Your task to perform on an android device: open a new tab in the chrome app Image 0: 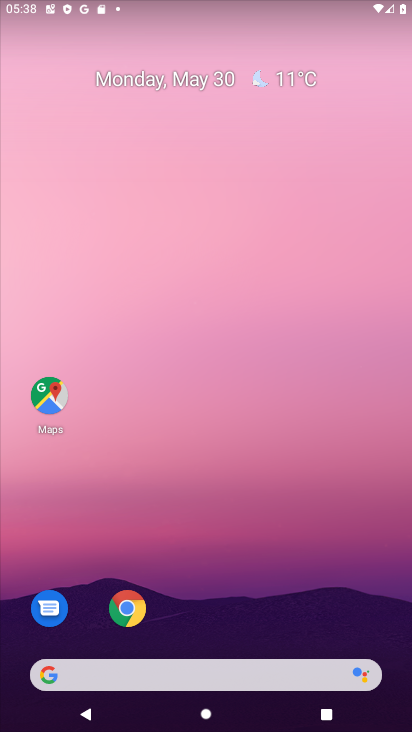
Step 0: drag from (159, 607) to (159, 284)
Your task to perform on an android device: open a new tab in the chrome app Image 1: 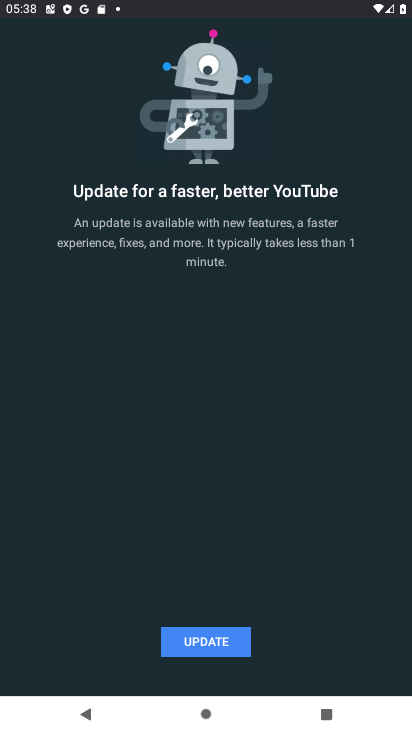
Step 1: press home button
Your task to perform on an android device: open a new tab in the chrome app Image 2: 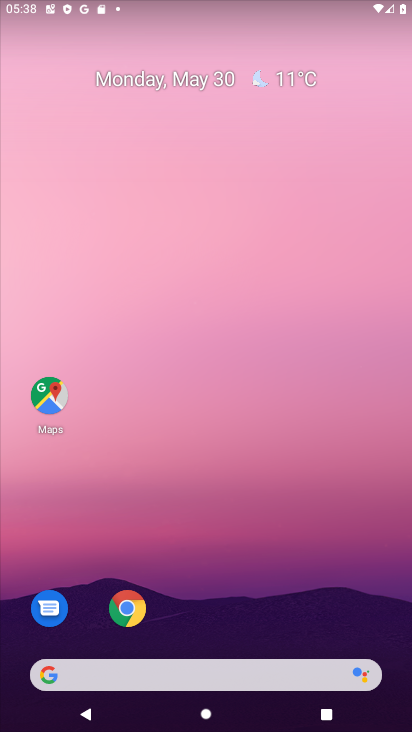
Step 2: click (133, 607)
Your task to perform on an android device: open a new tab in the chrome app Image 3: 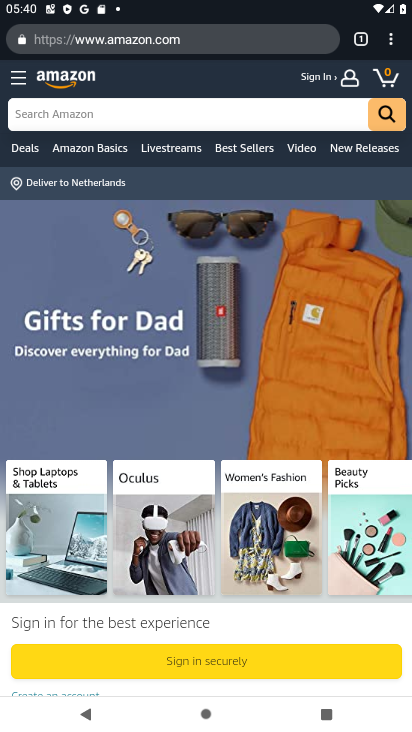
Step 3: click (390, 41)
Your task to perform on an android device: open a new tab in the chrome app Image 4: 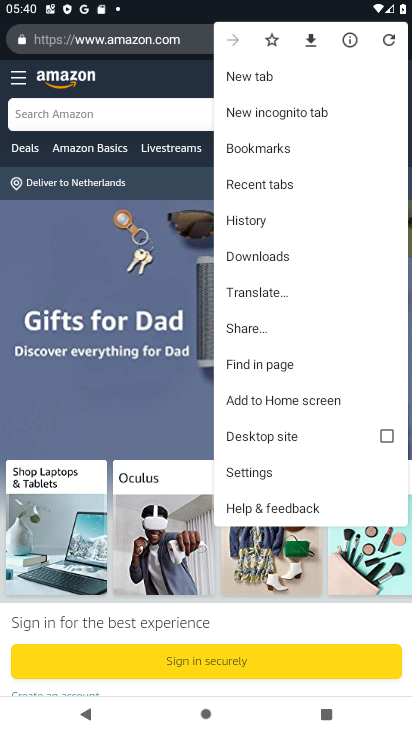
Step 4: click (264, 79)
Your task to perform on an android device: open a new tab in the chrome app Image 5: 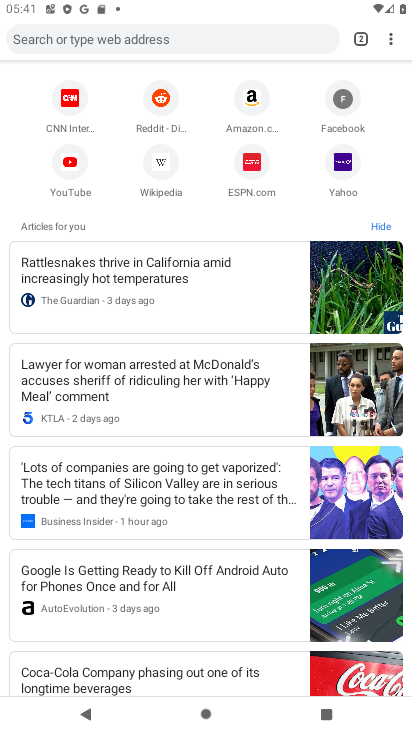
Step 5: task complete